Your task to perform on an android device: check storage Image 0: 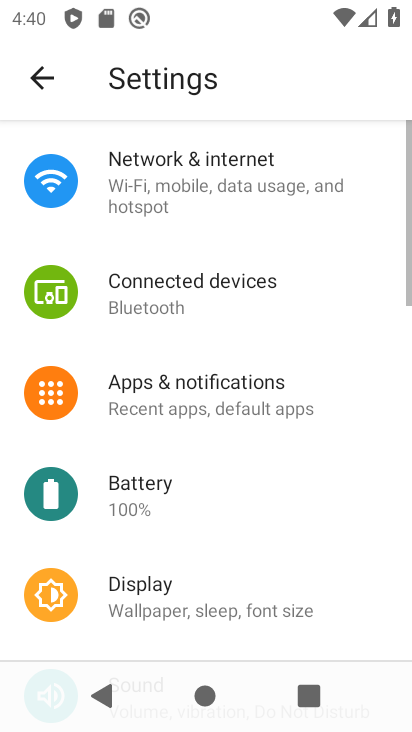
Step 0: drag from (211, 515) to (267, 97)
Your task to perform on an android device: check storage Image 1: 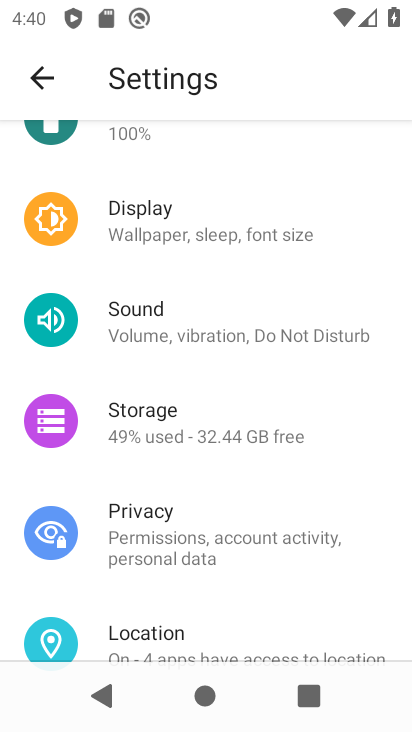
Step 1: drag from (248, 505) to (287, 181)
Your task to perform on an android device: check storage Image 2: 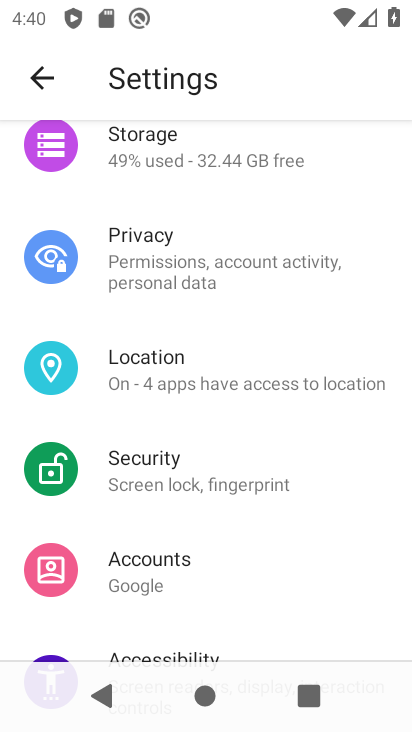
Step 2: drag from (220, 564) to (239, 80)
Your task to perform on an android device: check storage Image 3: 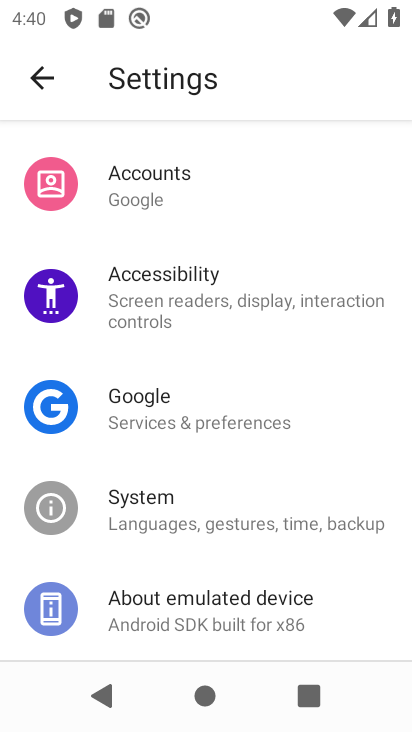
Step 3: drag from (206, 222) to (205, 529)
Your task to perform on an android device: check storage Image 4: 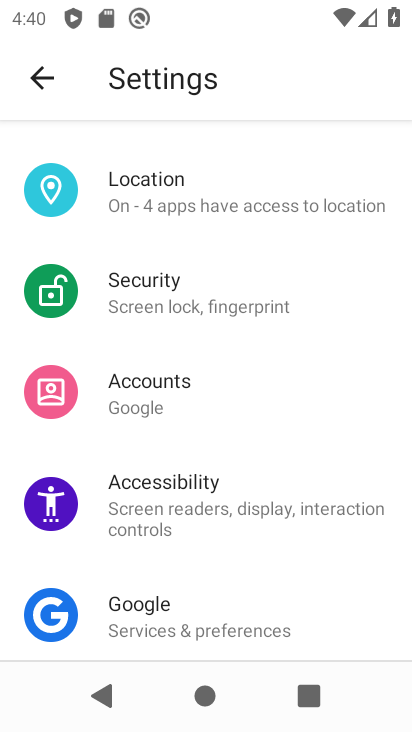
Step 4: drag from (232, 263) to (194, 646)
Your task to perform on an android device: check storage Image 5: 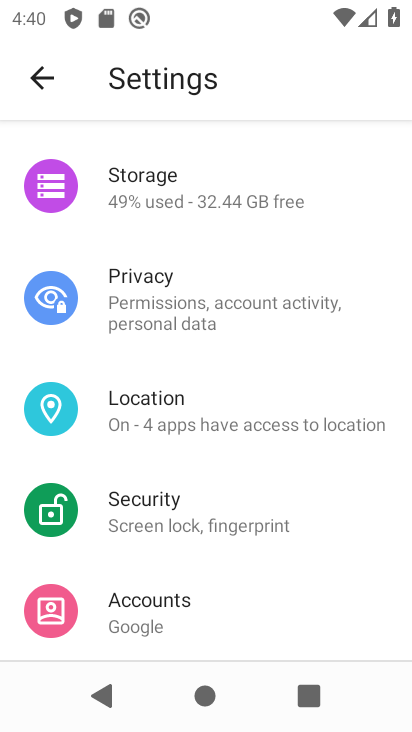
Step 5: click (227, 218)
Your task to perform on an android device: check storage Image 6: 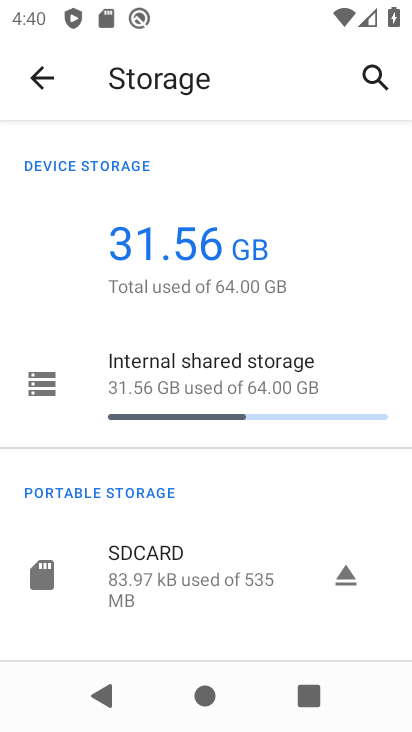
Step 6: task complete